Your task to perform on an android device: Go to Google maps Image 0: 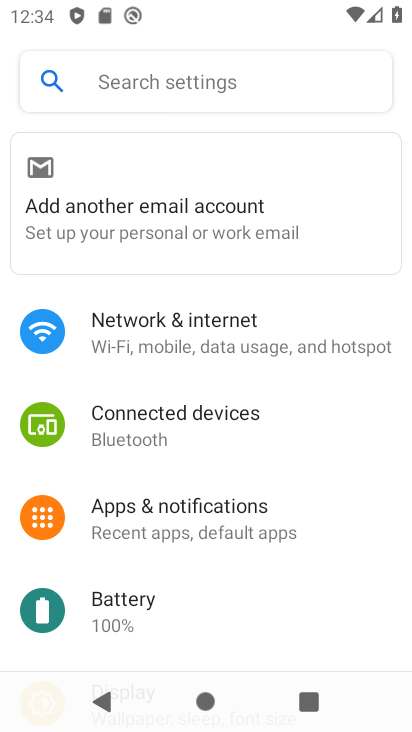
Step 0: press home button
Your task to perform on an android device: Go to Google maps Image 1: 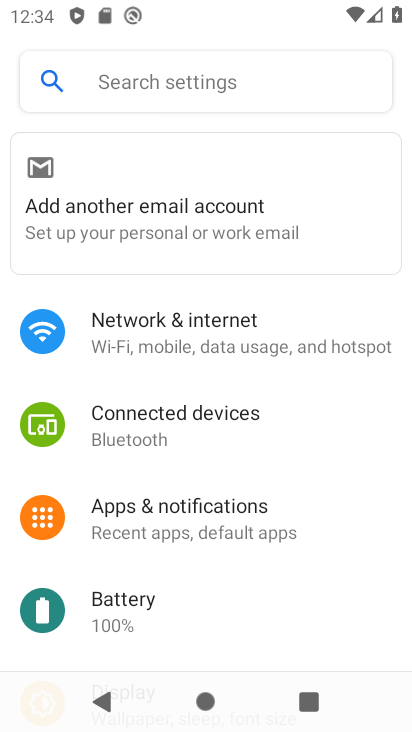
Step 1: press home button
Your task to perform on an android device: Go to Google maps Image 2: 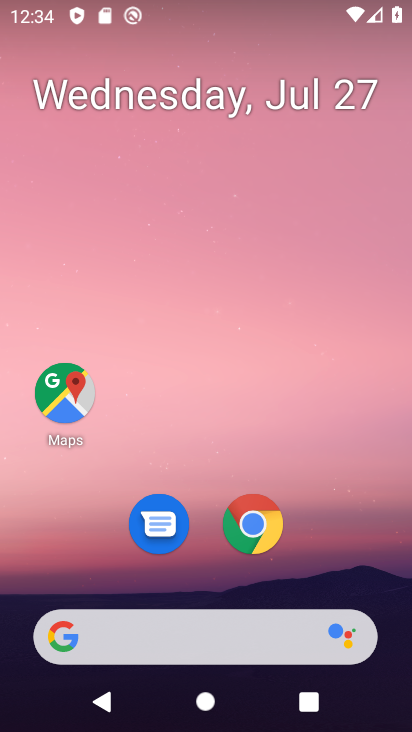
Step 2: click (57, 393)
Your task to perform on an android device: Go to Google maps Image 3: 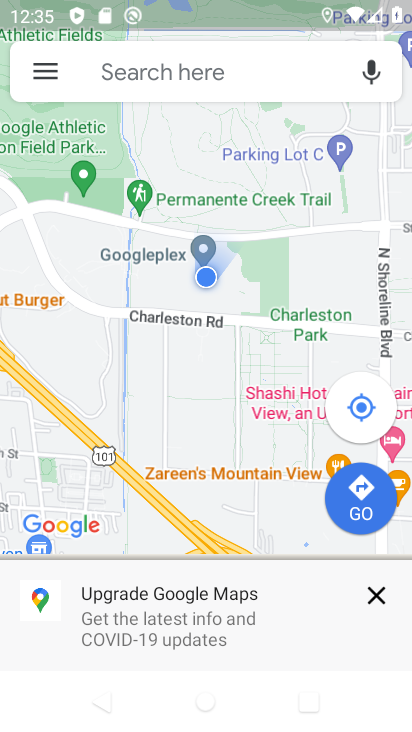
Step 3: task complete